Your task to perform on an android device: Open Google Maps Image 0: 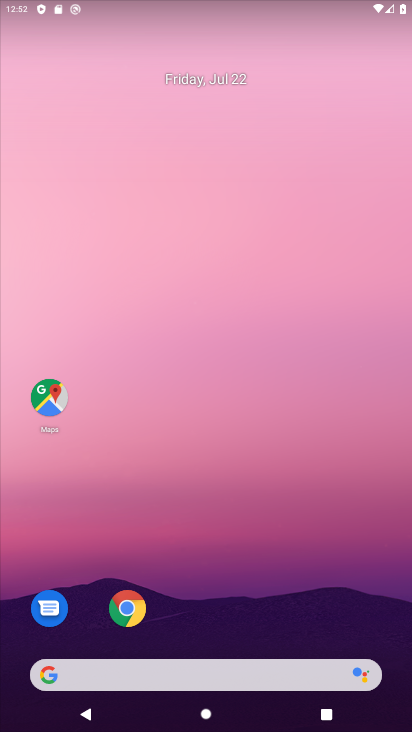
Step 0: click (46, 398)
Your task to perform on an android device: Open Google Maps Image 1: 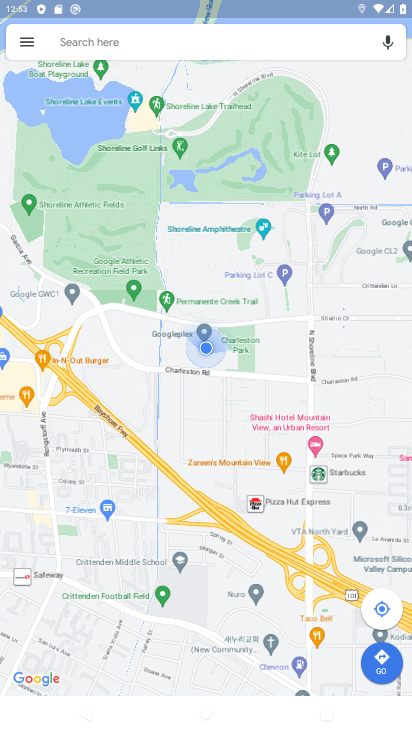
Step 1: click (81, 39)
Your task to perform on an android device: Open Google Maps Image 2: 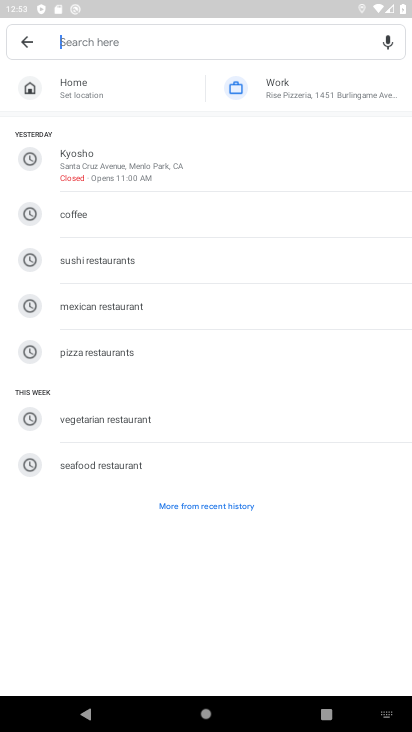
Step 2: click (19, 43)
Your task to perform on an android device: Open Google Maps Image 3: 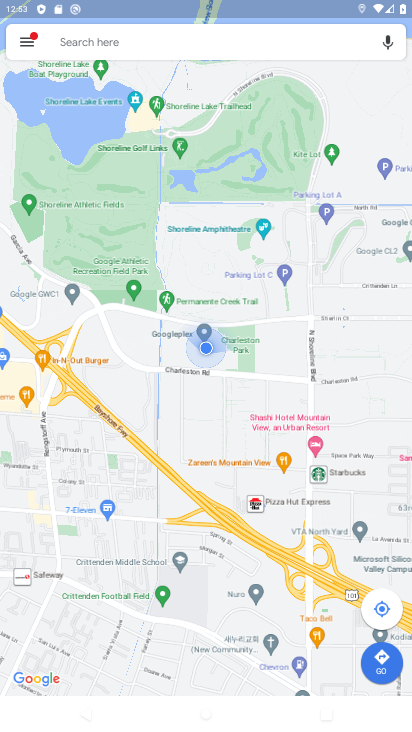
Step 3: task complete